Your task to perform on an android device: install app "ColorNote Notepad Notes" Image 0: 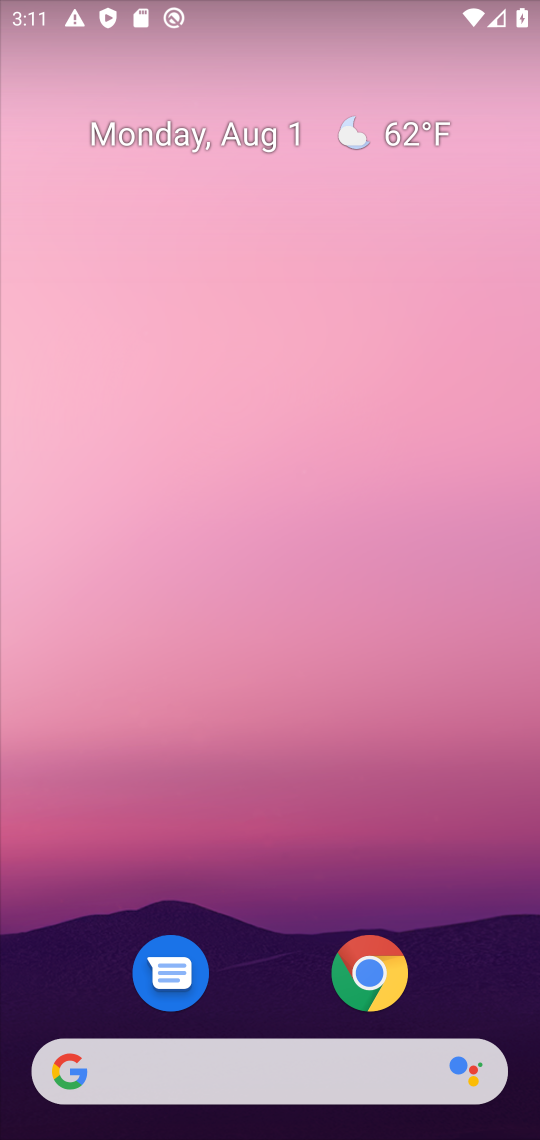
Step 0: press back button
Your task to perform on an android device: install app "ColorNote Notepad Notes" Image 1: 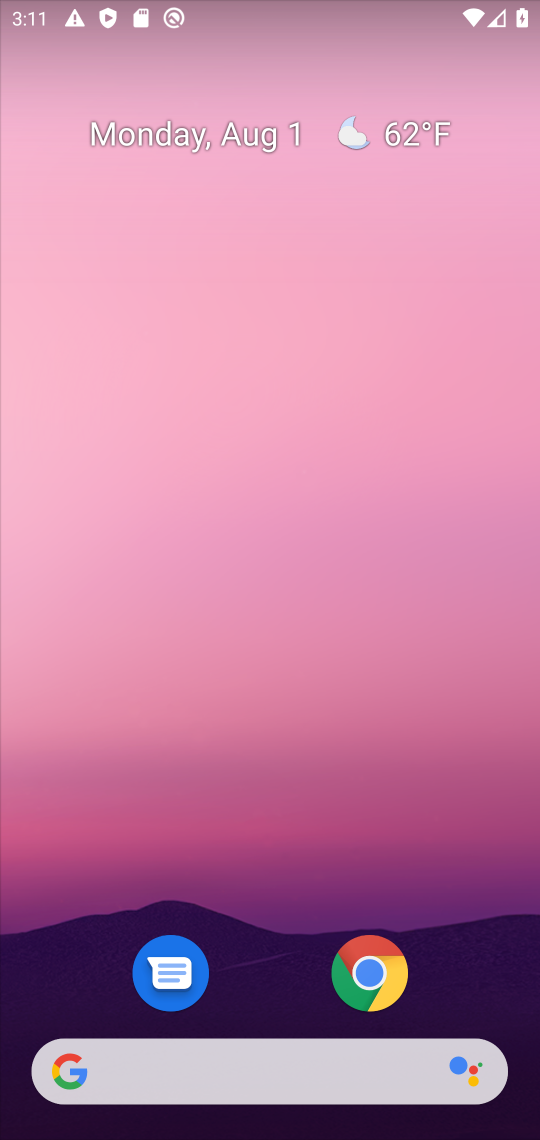
Step 1: drag from (271, 1005) to (199, 276)
Your task to perform on an android device: install app "ColorNote Notepad Notes" Image 2: 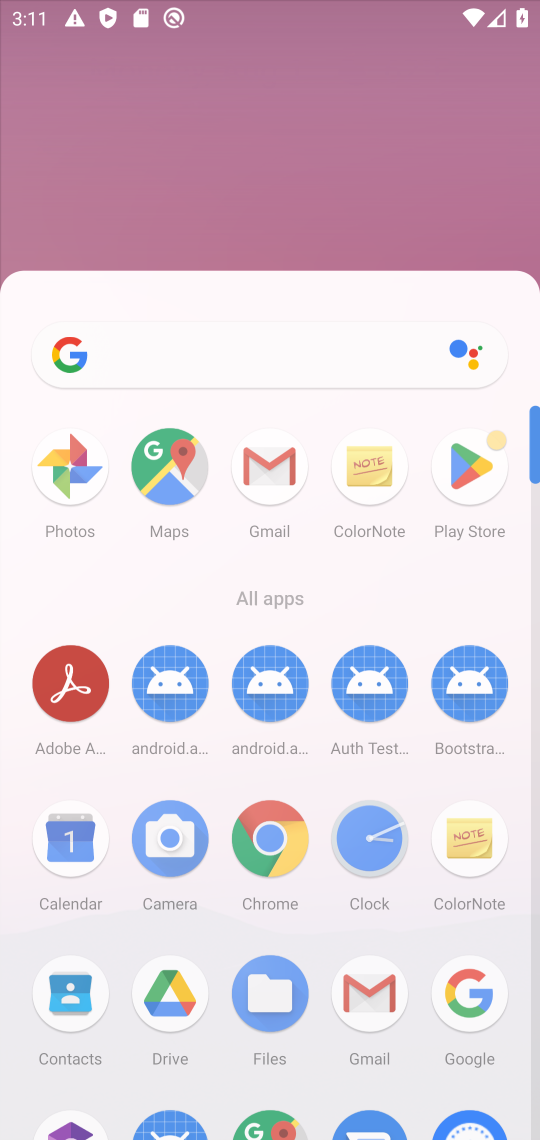
Step 2: drag from (331, 808) to (241, 182)
Your task to perform on an android device: install app "ColorNote Notepad Notes" Image 3: 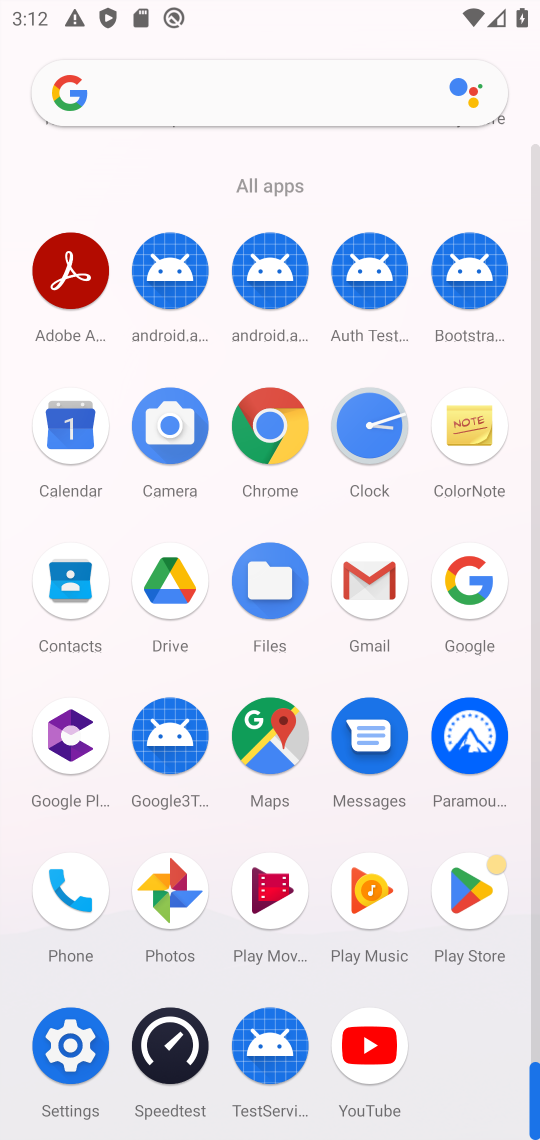
Step 3: click (482, 882)
Your task to perform on an android device: install app "ColorNote Notepad Notes" Image 4: 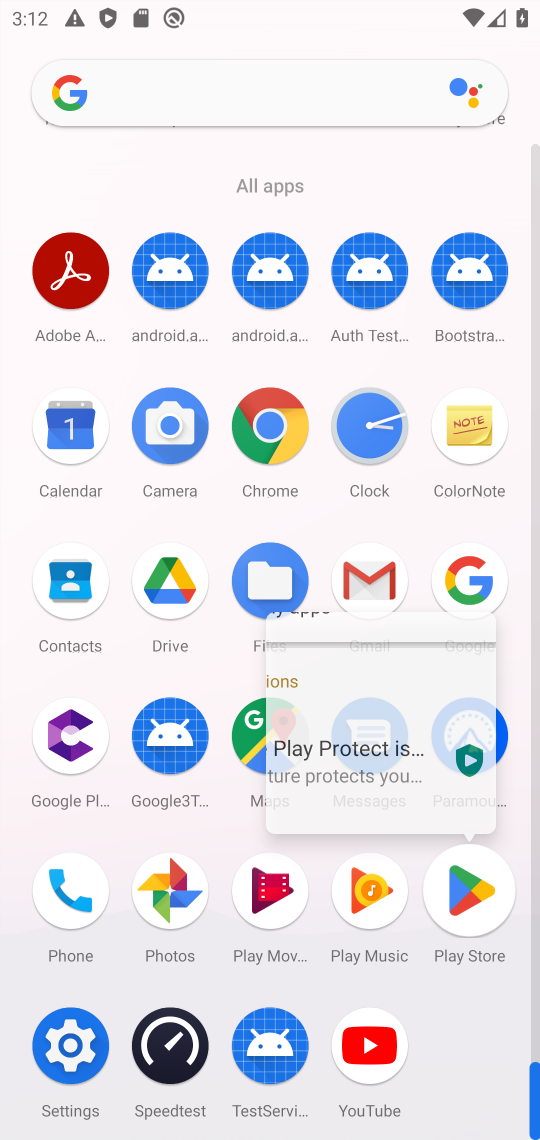
Step 4: click (481, 885)
Your task to perform on an android device: install app "ColorNote Notepad Notes" Image 5: 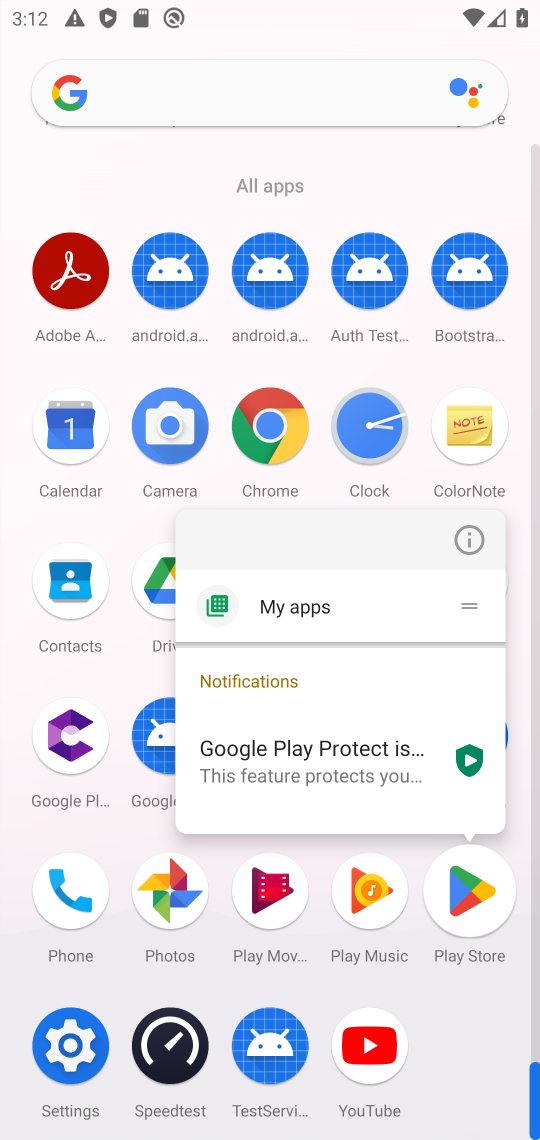
Step 5: click (481, 887)
Your task to perform on an android device: install app "ColorNote Notepad Notes" Image 6: 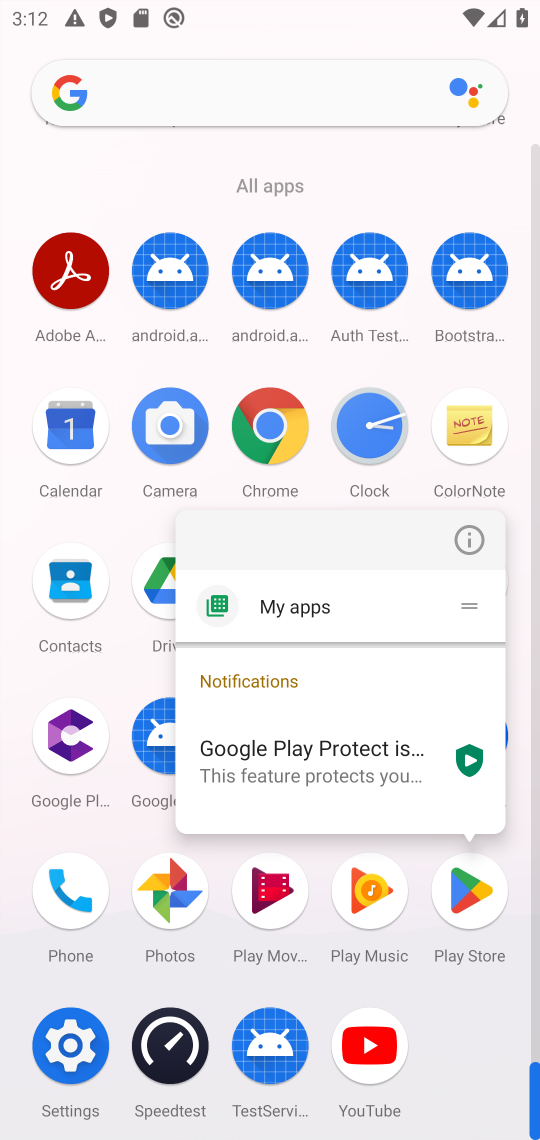
Step 6: drag from (486, 884) to (456, 836)
Your task to perform on an android device: install app "ColorNote Notepad Notes" Image 7: 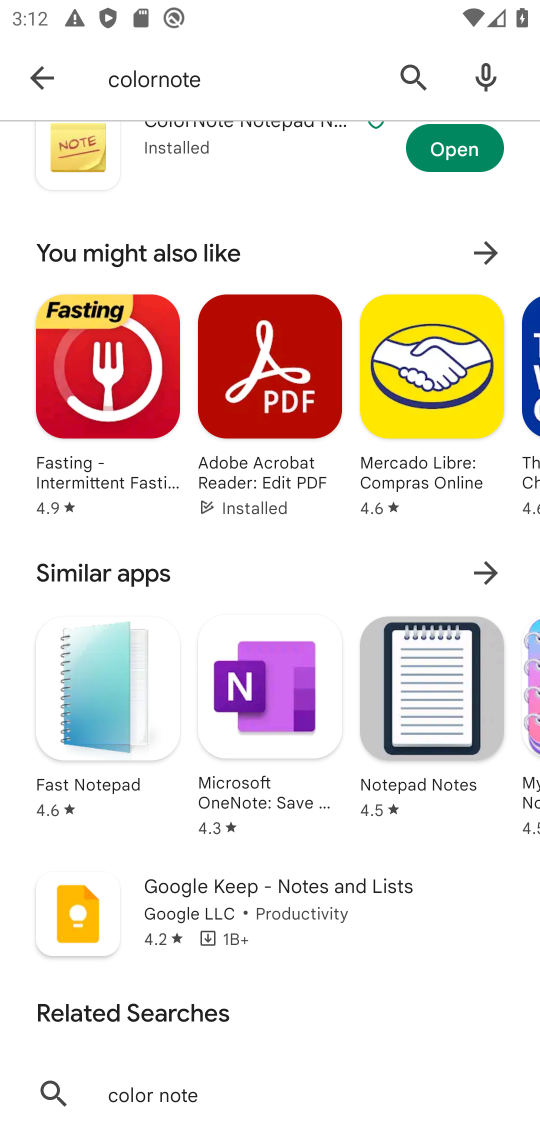
Step 7: click (452, 861)
Your task to perform on an android device: install app "ColorNote Notepad Notes" Image 8: 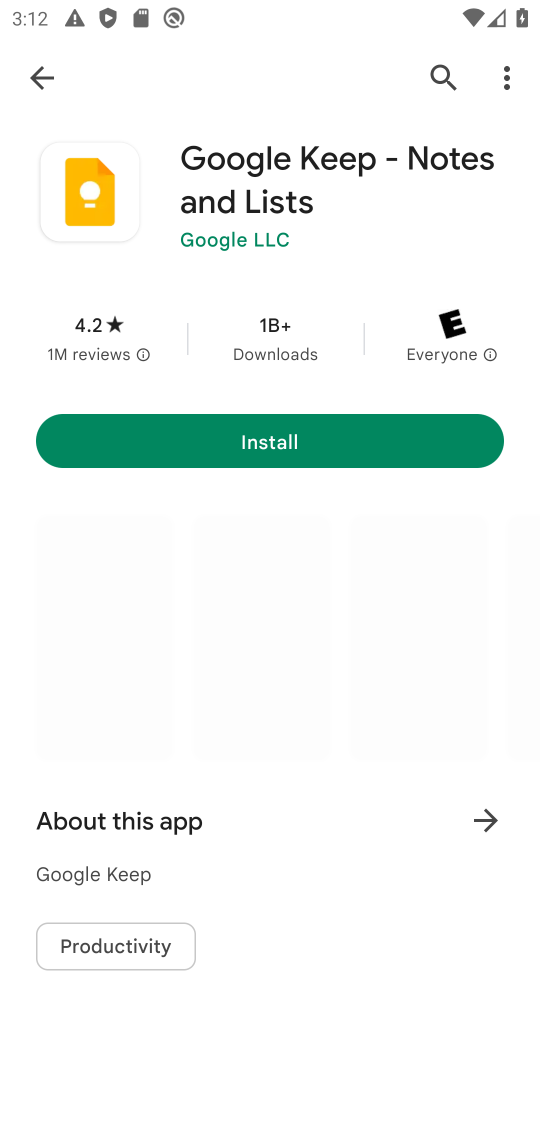
Step 8: click (29, 80)
Your task to perform on an android device: install app "ColorNote Notepad Notes" Image 9: 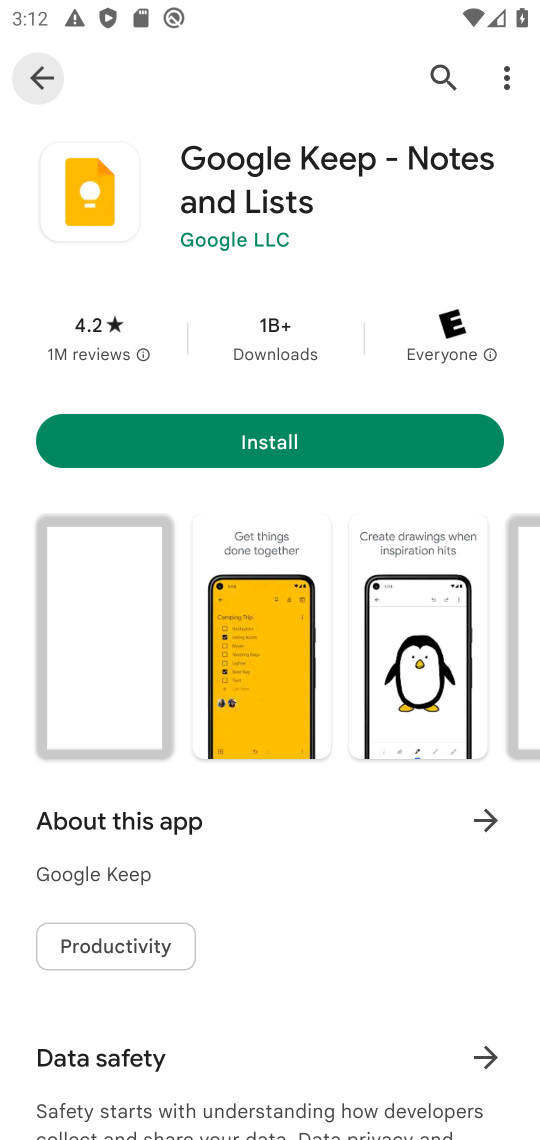
Step 9: click (37, 81)
Your task to perform on an android device: install app "ColorNote Notepad Notes" Image 10: 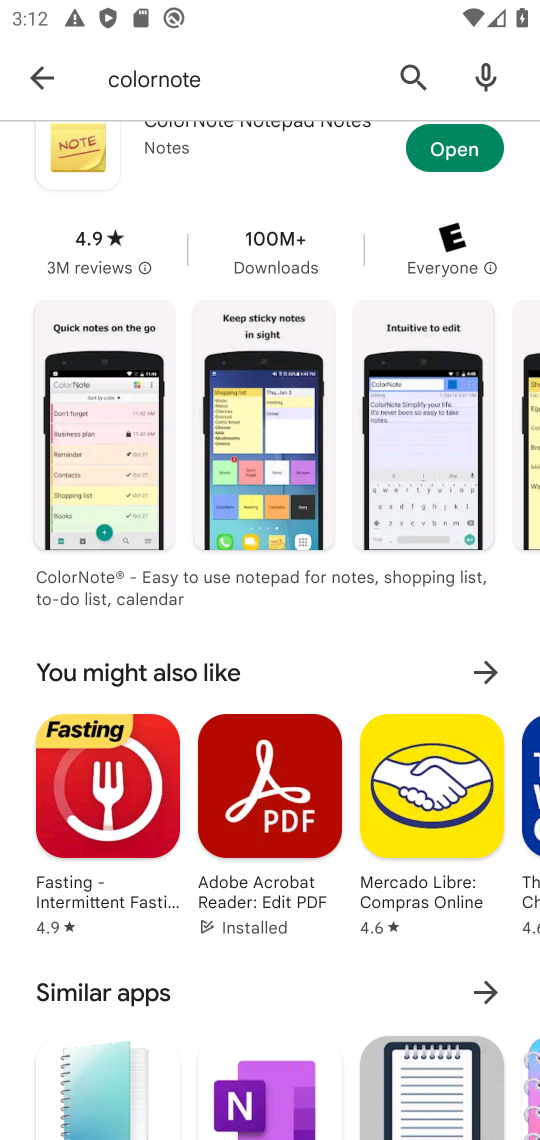
Step 10: click (117, 60)
Your task to perform on an android device: install app "ColorNote Notepad Notes" Image 11: 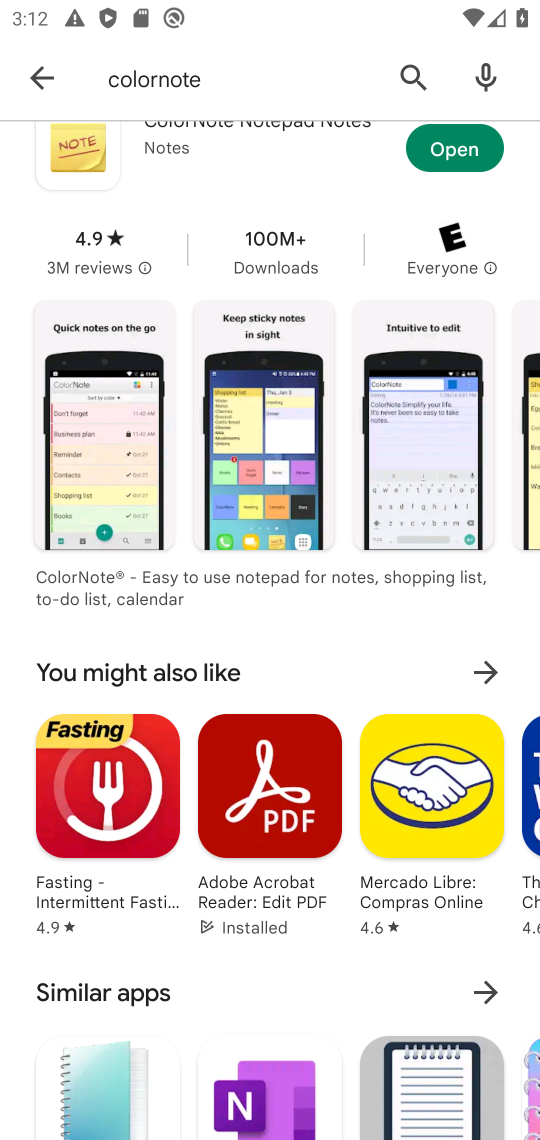
Step 11: click (117, 58)
Your task to perform on an android device: install app "ColorNote Notepad Notes" Image 12: 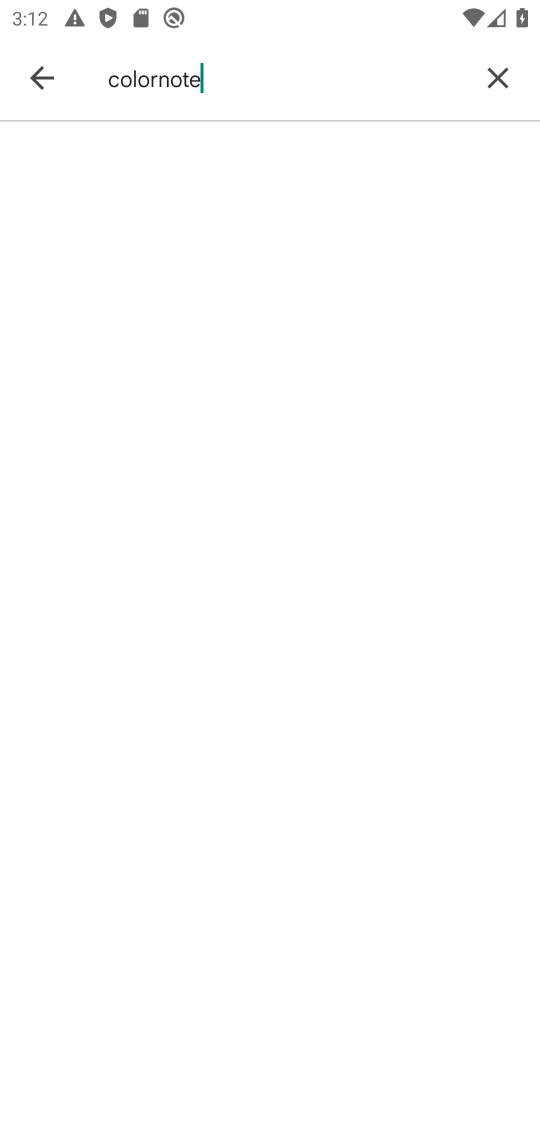
Step 12: click (117, 57)
Your task to perform on an android device: install app "ColorNote Notepad Notes" Image 13: 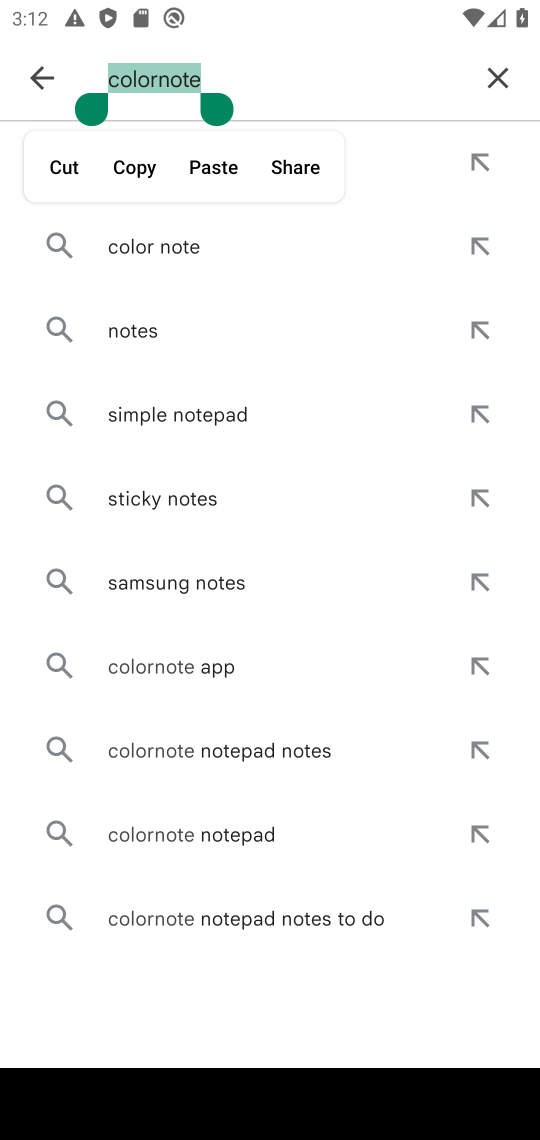
Step 13: click (503, 75)
Your task to perform on an android device: install app "ColorNote Notepad Notes" Image 14: 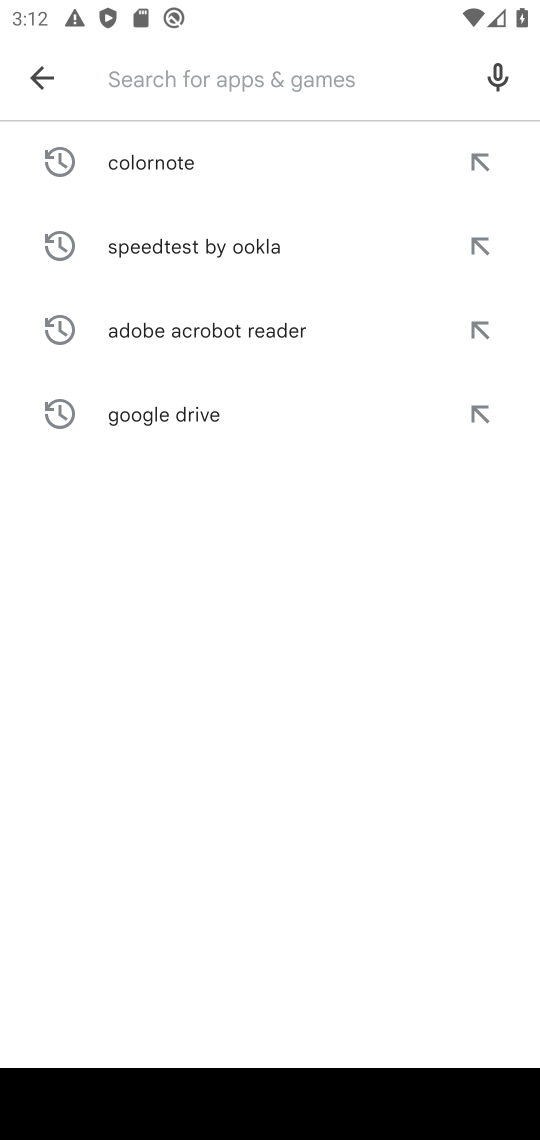
Step 14: type "colornote"
Your task to perform on an android device: install app "ColorNote Notepad Notes" Image 15: 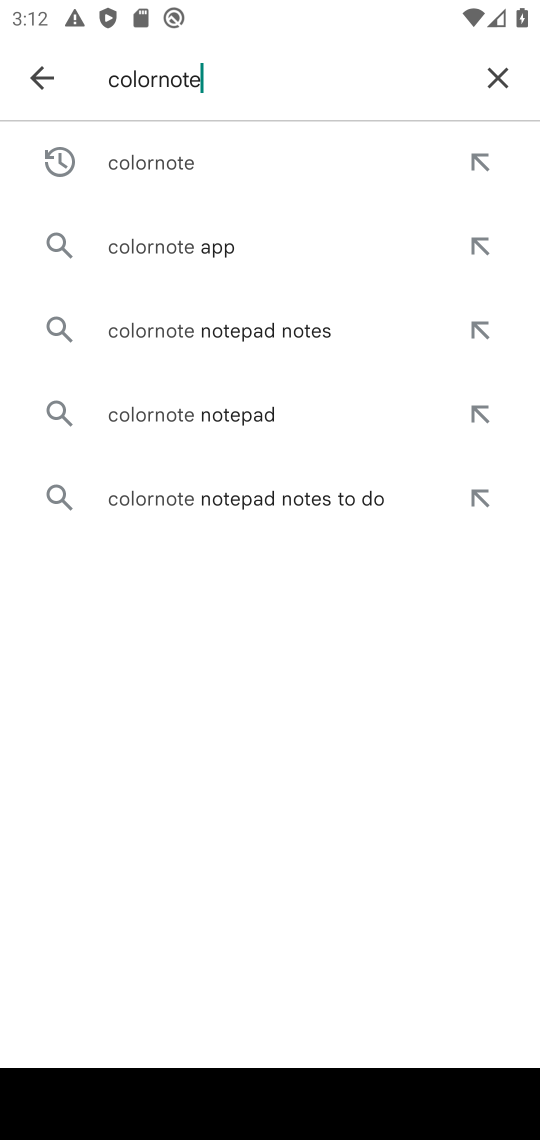
Step 15: click (479, 169)
Your task to perform on an android device: install app "ColorNote Notepad Notes" Image 16: 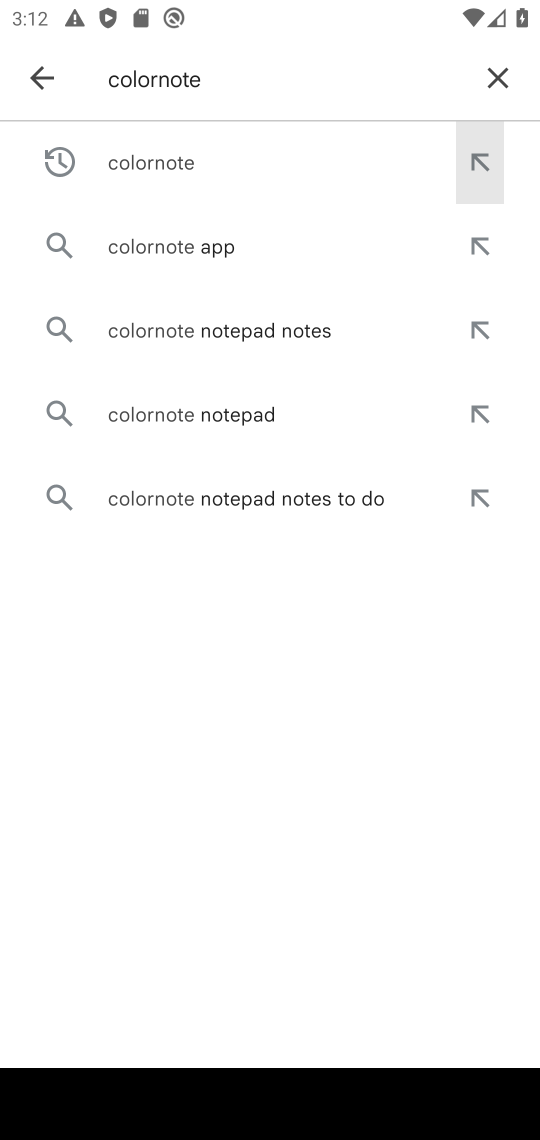
Step 16: click (479, 170)
Your task to perform on an android device: install app "ColorNote Notepad Notes" Image 17: 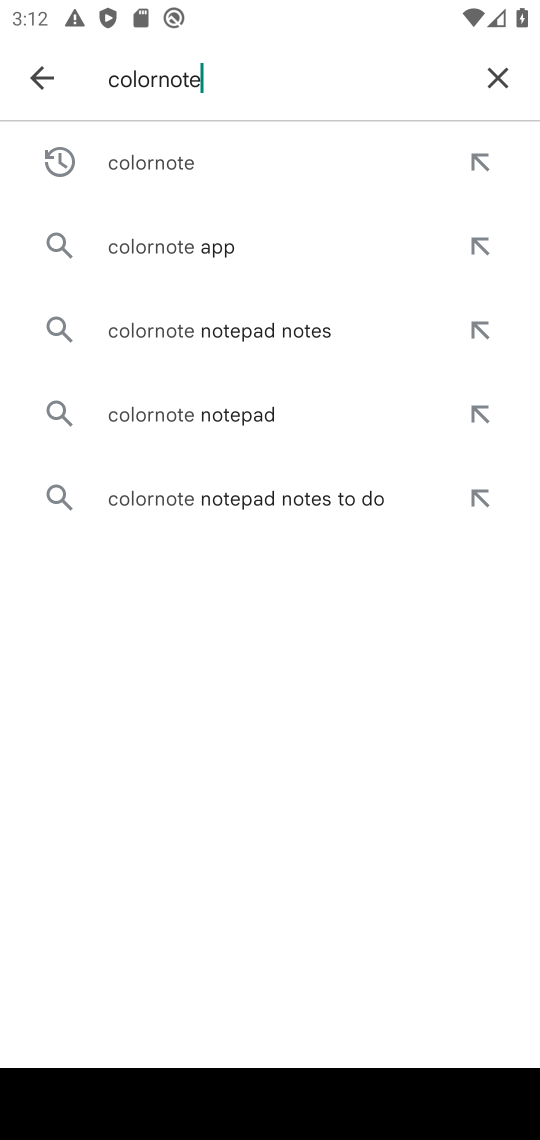
Step 17: click (479, 170)
Your task to perform on an android device: install app "ColorNote Notepad Notes" Image 18: 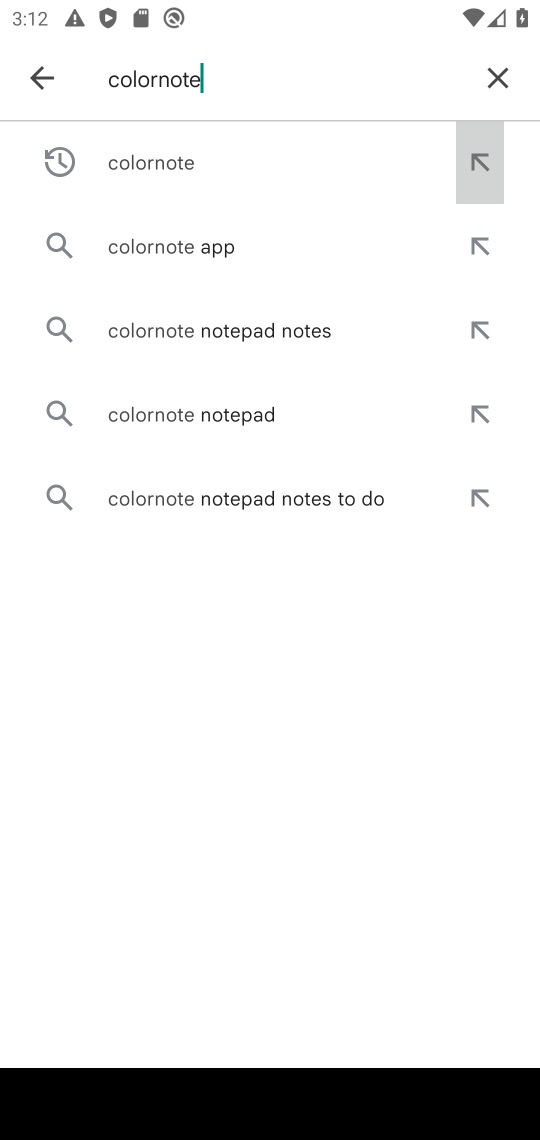
Step 18: click (479, 170)
Your task to perform on an android device: install app "ColorNote Notepad Notes" Image 19: 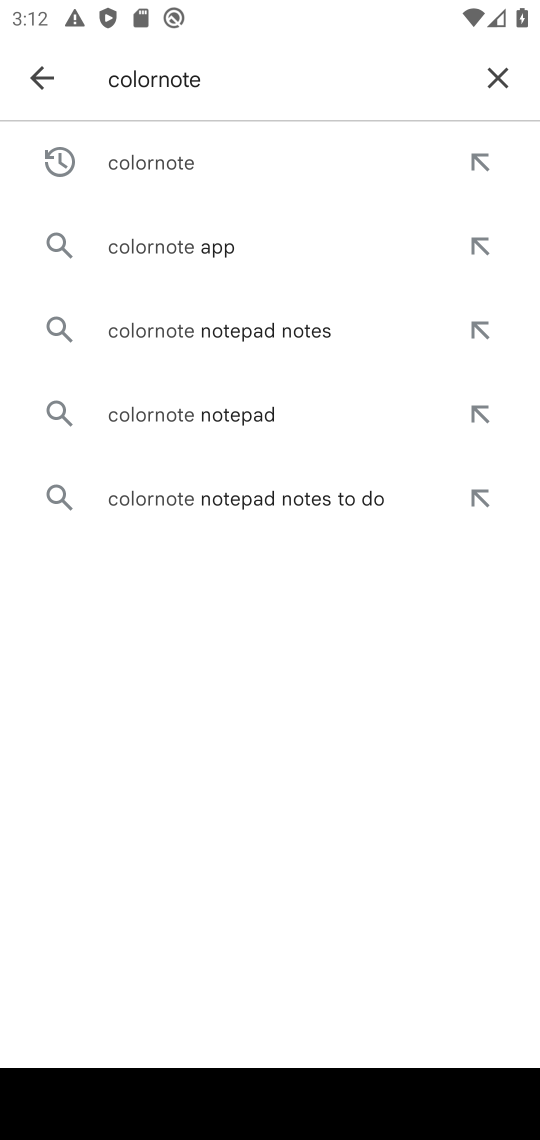
Step 19: click (143, 169)
Your task to perform on an android device: install app "ColorNote Notepad Notes" Image 20: 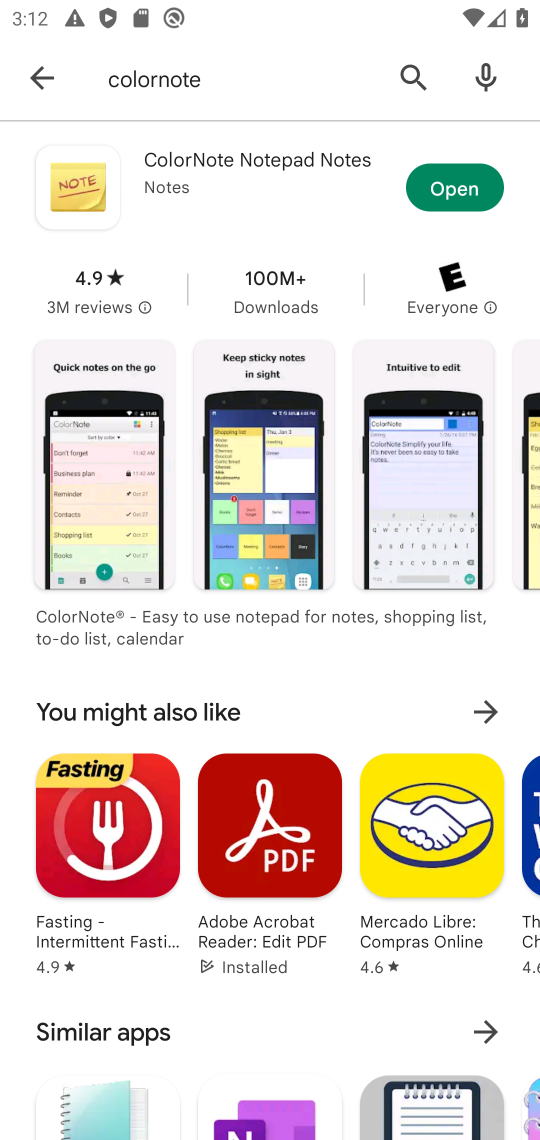
Step 20: click (460, 184)
Your task to perform on an android device: install app "ColorNote Notepad Notes" Image 21: 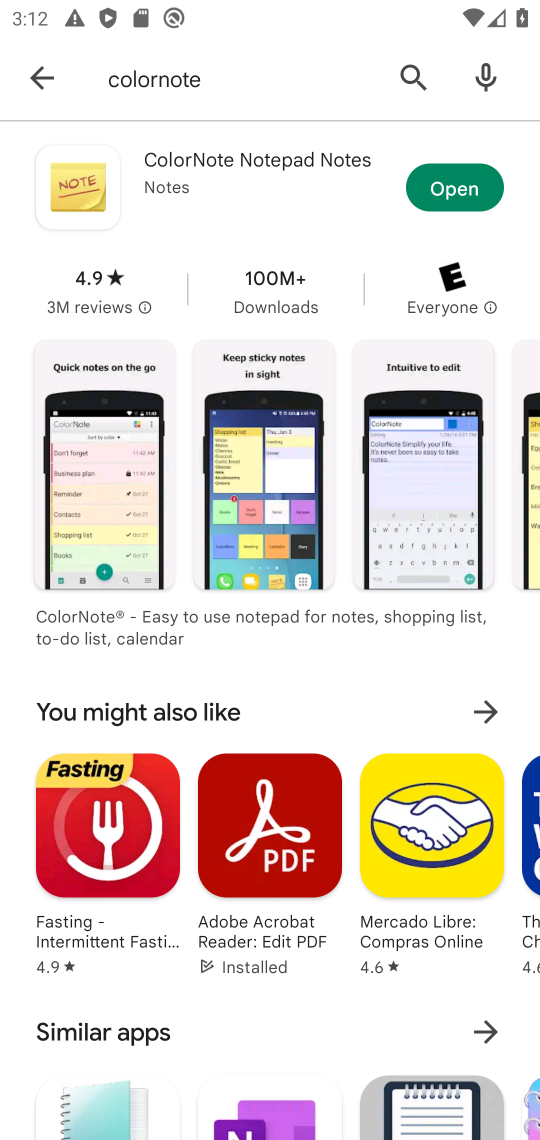
Step 21: click (466, 188)
Your task to perform on an android device: install app "ColorNote Notepad Notes" Image 22: 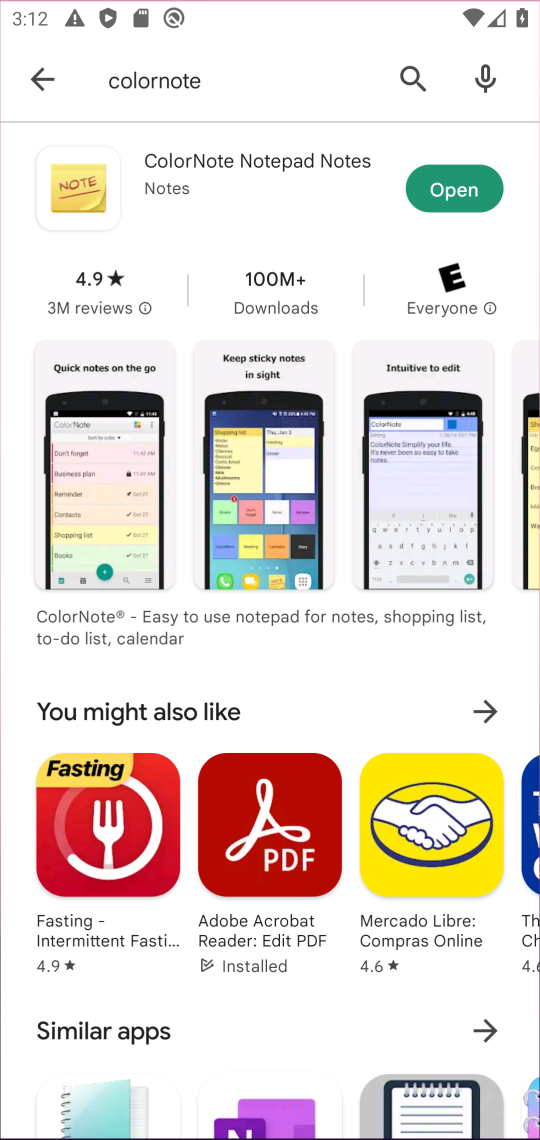
Step 22: click (477, 201)
Your task to perform on an android device: install app "ColorNote Notepad Notes" Image 23: 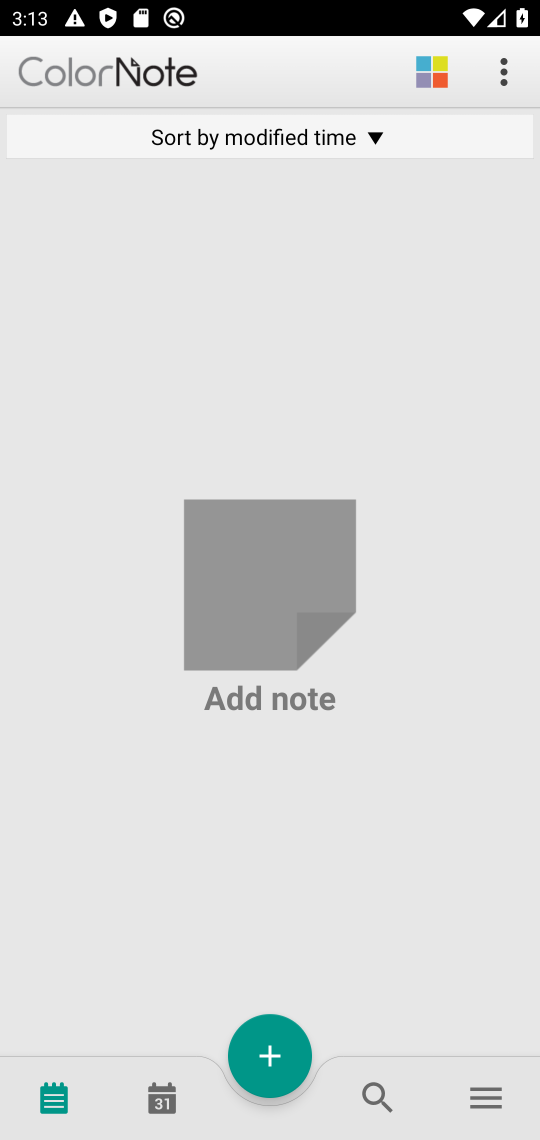
Step 23: task complete